Your task to perform on an android device: Show me popular videos on Youtube Image 0: 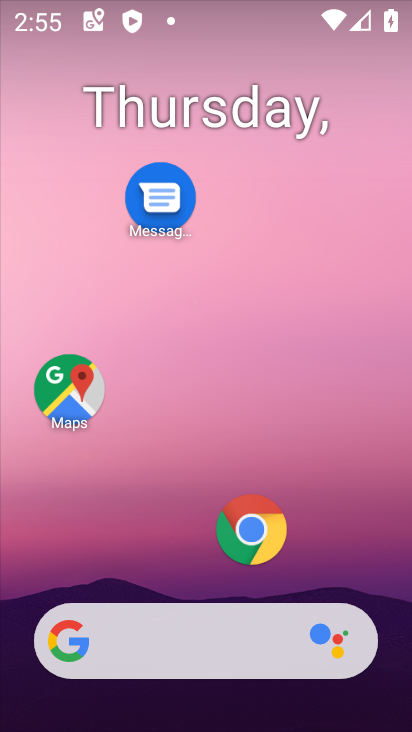
Step 0: drag from (169, 560) to (203, 245)
Your task to perform on an android device: Show me popular videos on Youtube Image 1: 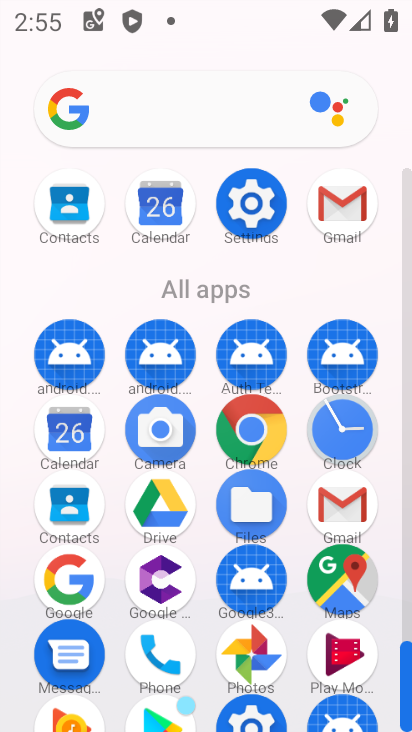
Step 1: drag from (203, 610) to (247, 185)
Your task to perform on an android device: Show me popular videos on Youtube Image 2: 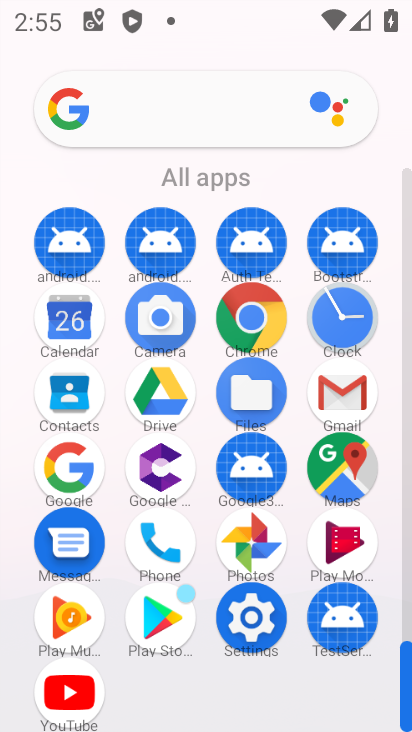
Step 2: click (64, 705)
Your task to perform on an android device: Show me popular videos on Youtube Image 3: 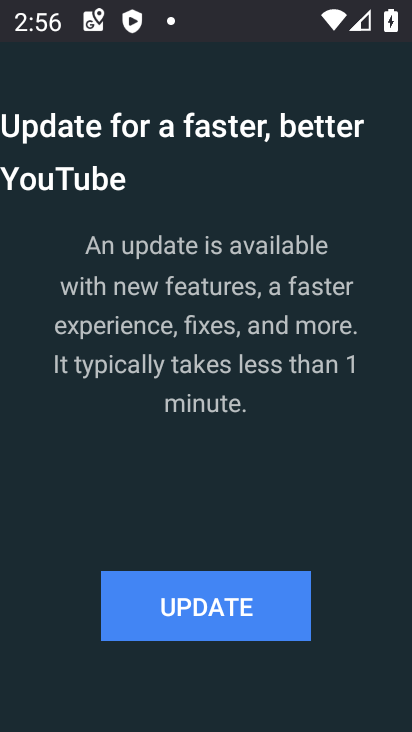
Step 3: click (195, 616)
Your task to perform on an android device: Show me popular videos on Youtube Image 4: 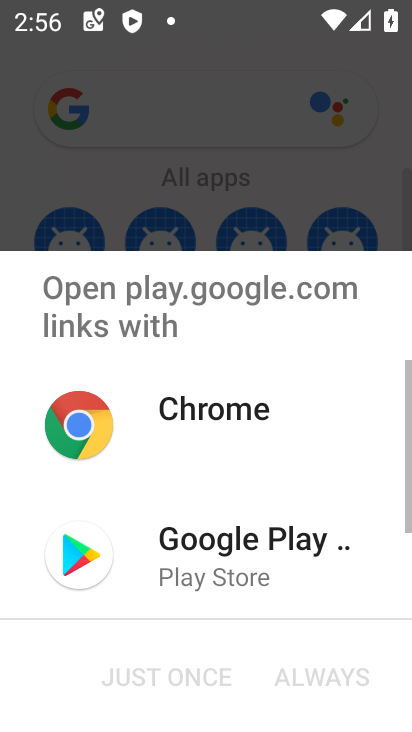
Step 4: click (244, 562)
Your task to perform on an android device: Show me popular videos on Youtube Image 5: 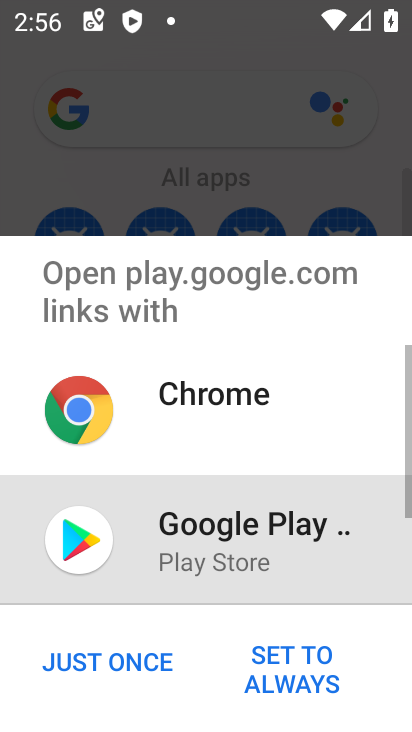
Step 5: click (324, 685)
Your task to perform on an android device: Show me popular videos on Youtube Image 6: 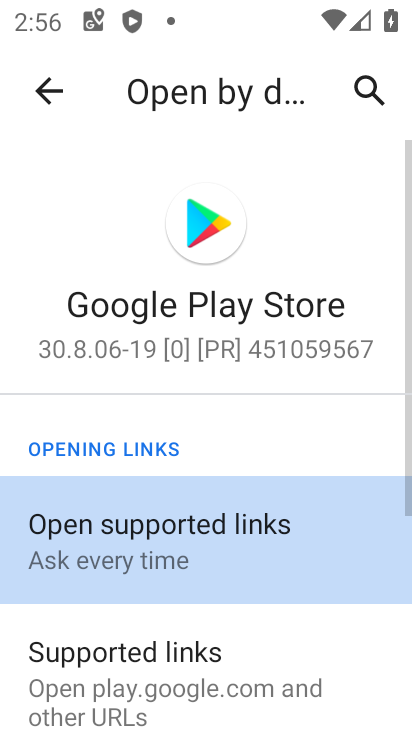
Step 6: click (56, 85)
Your task to perform on an android device: Show me popular videos on Youtube Image 7: 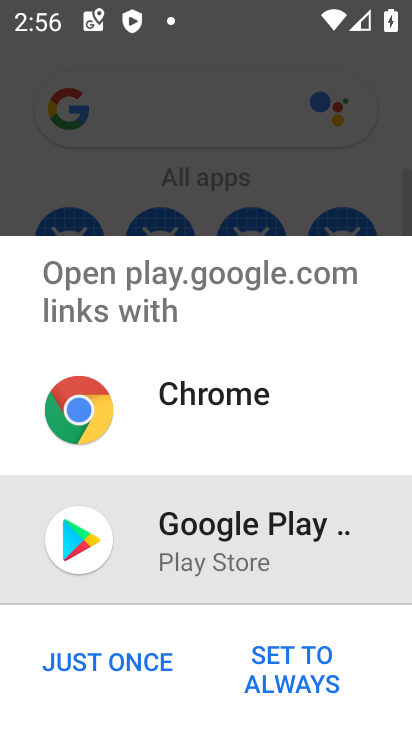
Step 7: click (144, 650)
Your task to perform on an android device: Show me popular videos on Youtube Image 8: 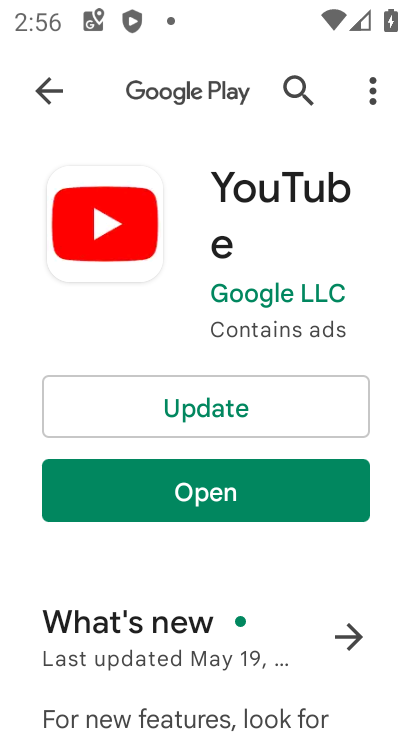
Step 8: click (222, 404)
Your task to perform on an android device: Show me popular videos on Youtube Image 9: 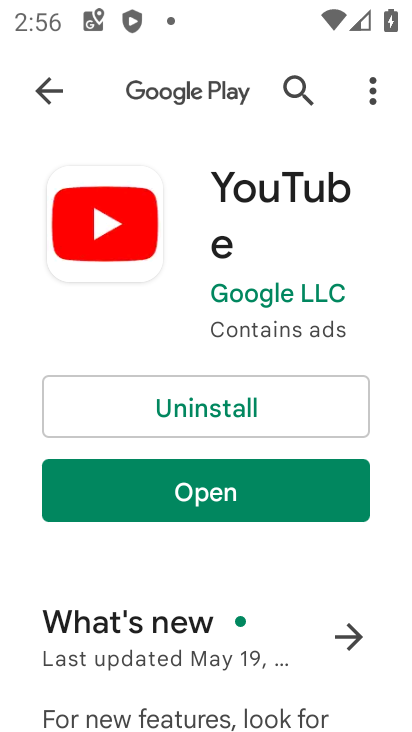
Step 9: click (235, 503)
Your task to perform on an android device: Show me popular videos on Youtube Image 10: 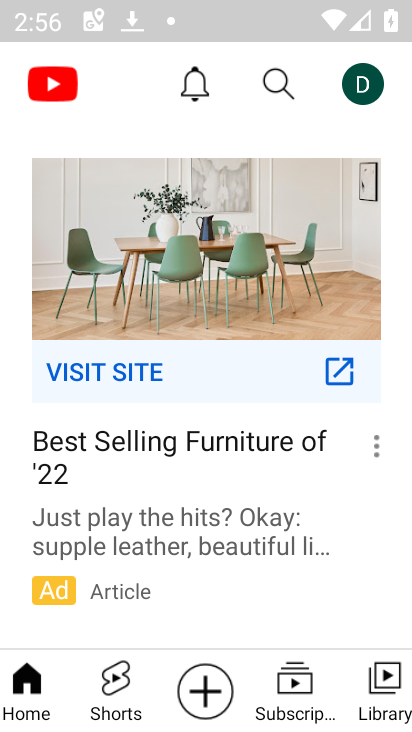
Step 10: click (275, 89)
Your task to perform on an android device: Show me popular videos on Youtube Image 11: 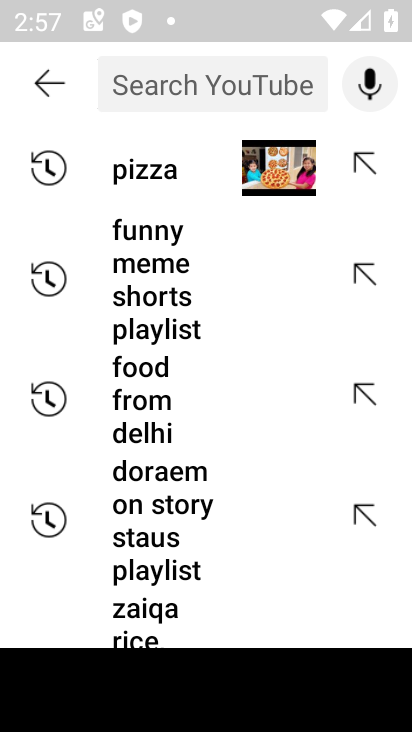
Step 11: type "popular videos "
Your task to perform on an android device: Show me popular videos on Youtube Image 12: 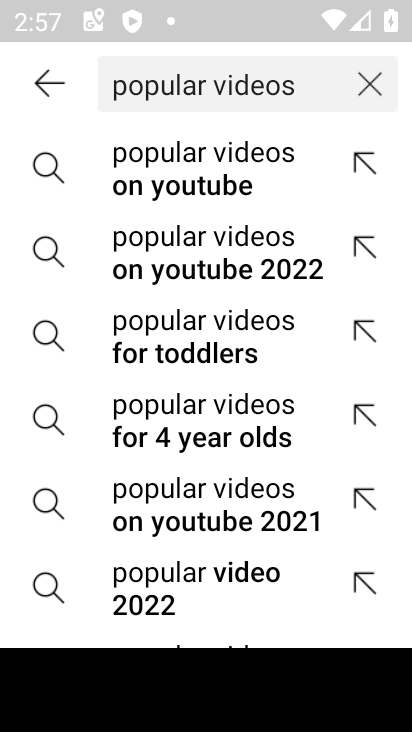
Step 12: click (258, 166)
Your task to perform on an android device: Show me popular videos on Youtube Image 13: 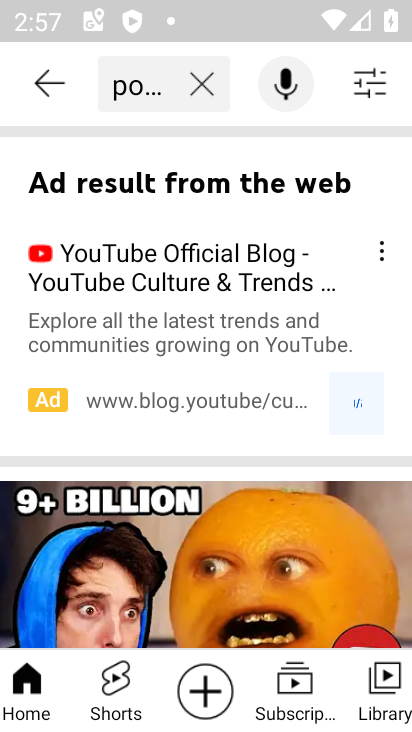
Step 13: task complete